Your task to perform on an android device: Show me popular videos on Youtube Image 0: 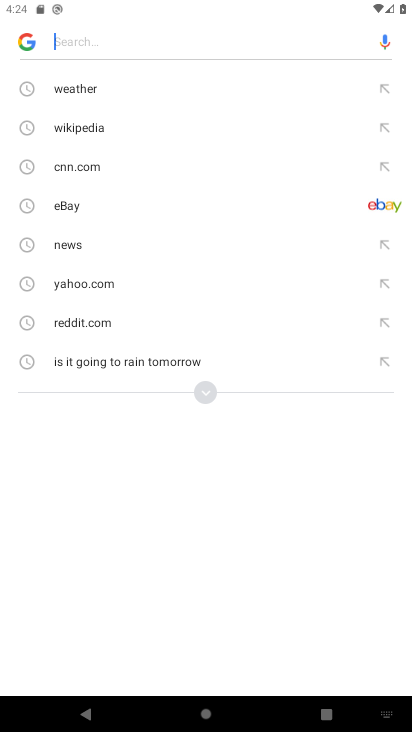
Step 0: press home button
Your task to perform on an android device: Show me popular videos on Youtube Image 1: 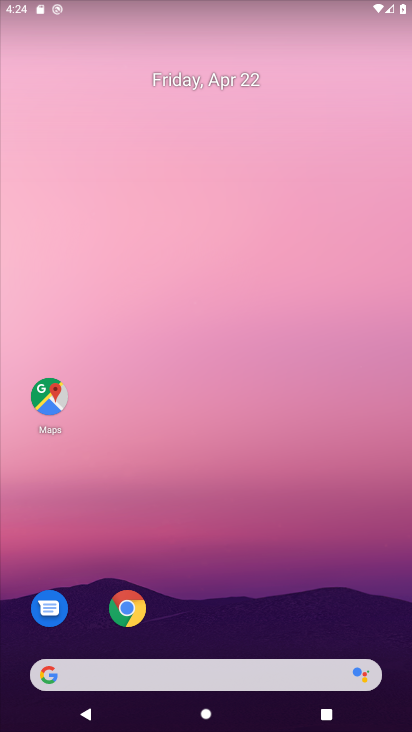
Step 1: drag from (236, 642) to (319, 204)
Your task to perform on an android device: Show me popular videos on Youtube Image 2: 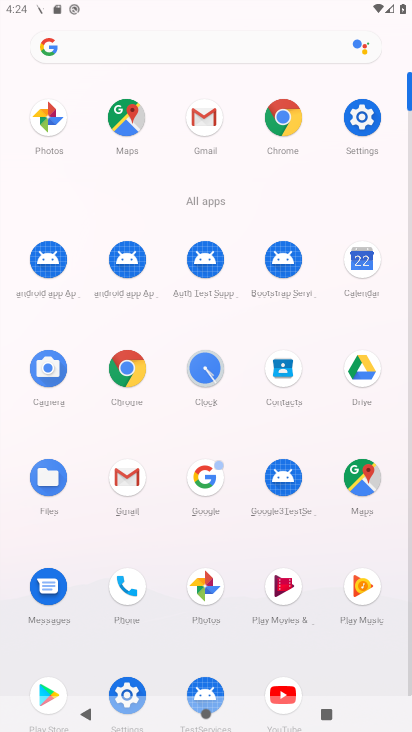
Step 2: drag from (294, 486) to (346, 256)
Your task to perform on an android device: Show me popular videos on Youtube Image 3: 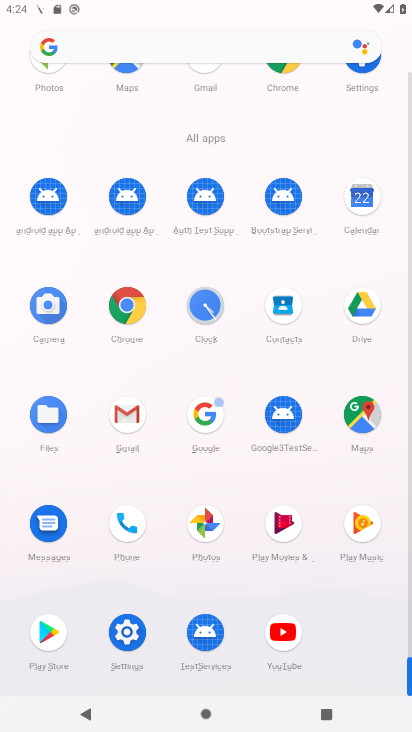
Step 3: click (293, 643)
Your task to perform on an android device: Show me popular videos on Youtube Image 4: 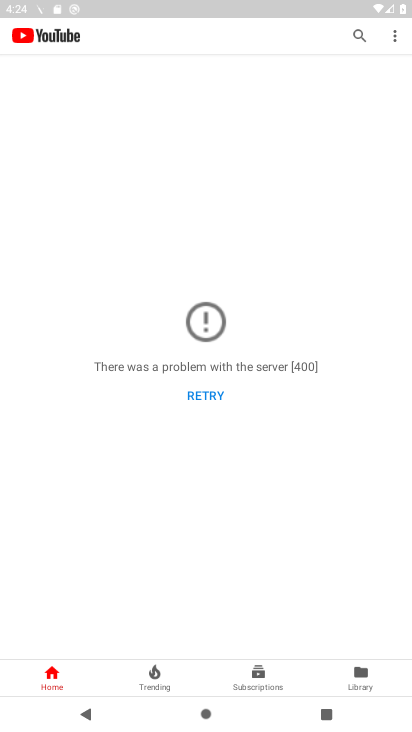
Step 4: click (164, 674)
Your task to perform on an android device: Show me popular videos on Youtube Image 5: 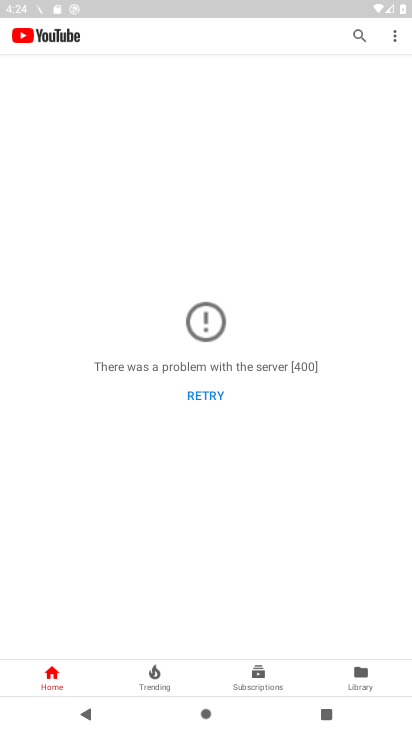
Step 5: click (160, 678)
Your task to perform on an android device: Show me popular videos on Youtube Image 6: 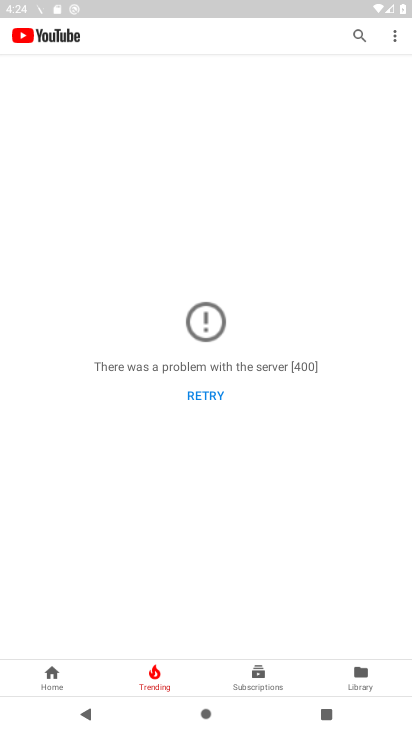
Step 6: task complete